Your task to perform on an android device: Open sound settings Image 0: 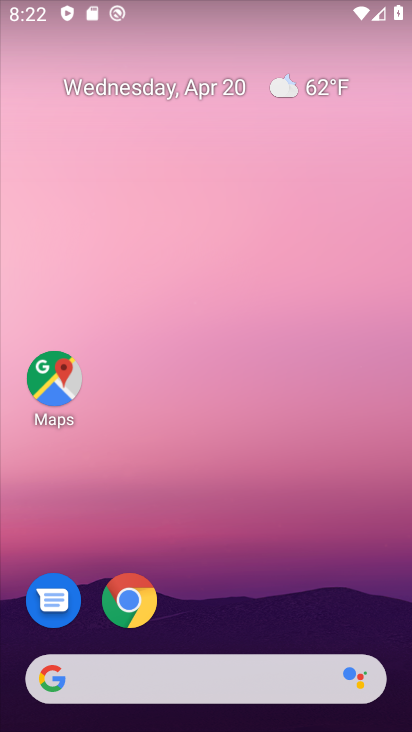
Step 0: drag from (198, 648) to (288, 116)
Your task to perform on an android device: Open sound settings Image 1: 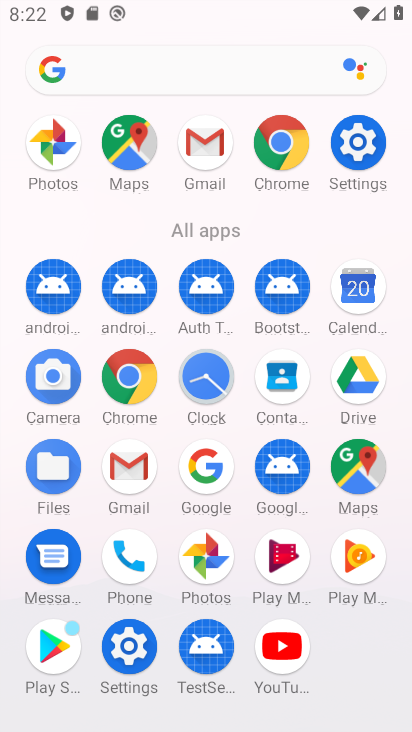
Step 1: click (147, 660)
Your task to perform on an android device: Open sound settings Image 2: 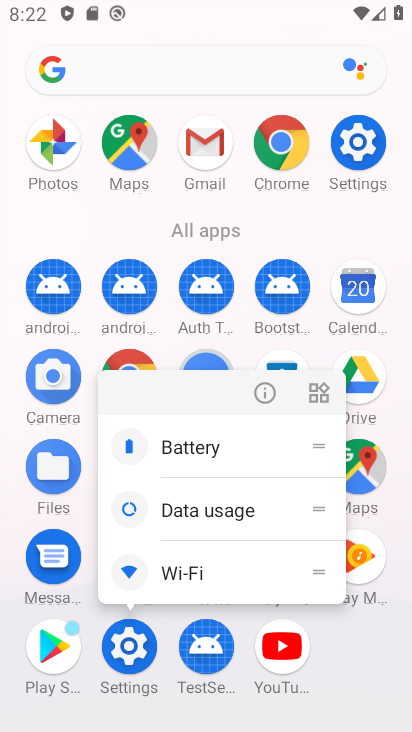
Step 2: click (131, 641)
Your task to perform on an android device: Open sound settings Image 3: 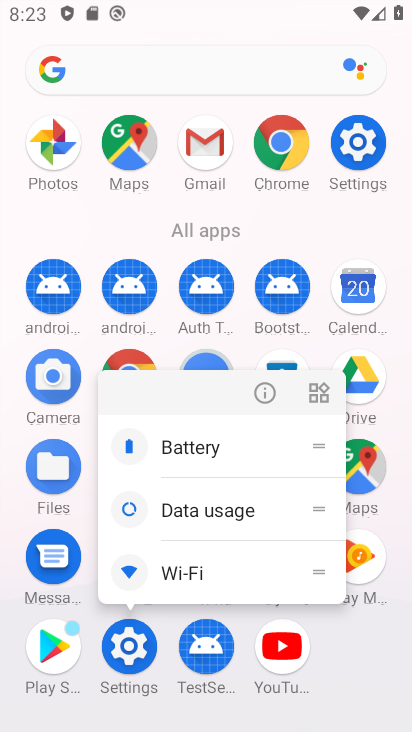
Step 3: click (131, 641)
Your task to perform on an android device: Open sound settings Image 4: 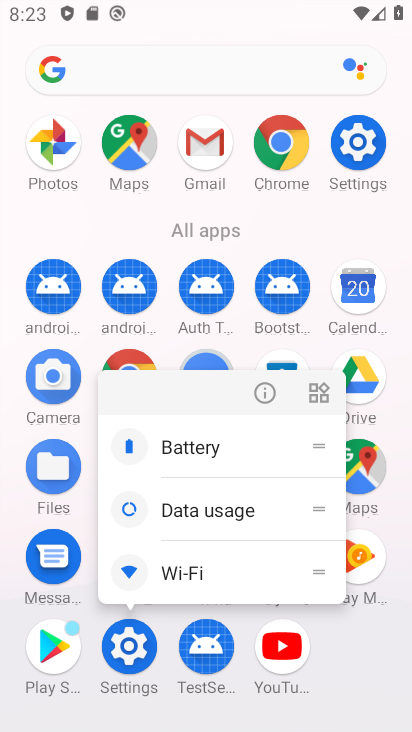
Step 4: click (131, 649)
Your task to perform on an android device: Open sound settings Image 5: 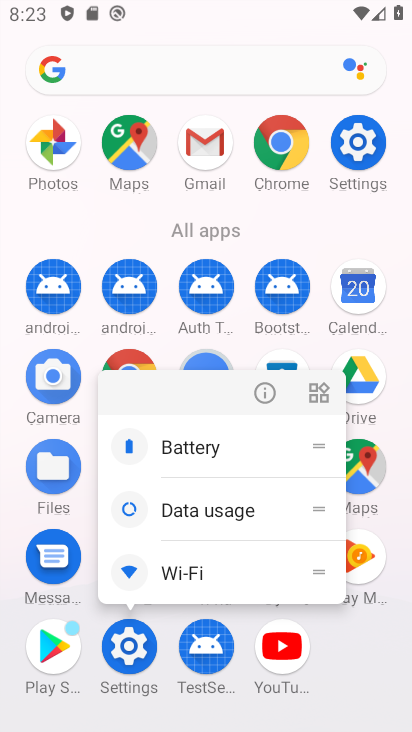
Step 5: click (125, 663)
Your task to perform on an android device: Open sound settings Image 6: 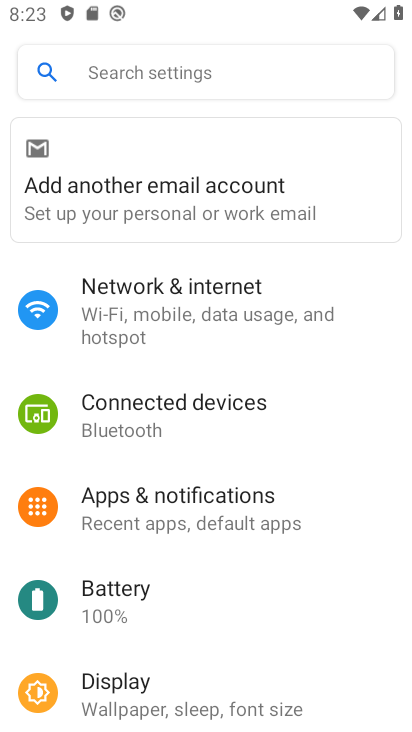
Step 6: drag from (186, 651) to (283, 320)
Your task to perform on an android device: Open sound settings Image 7: 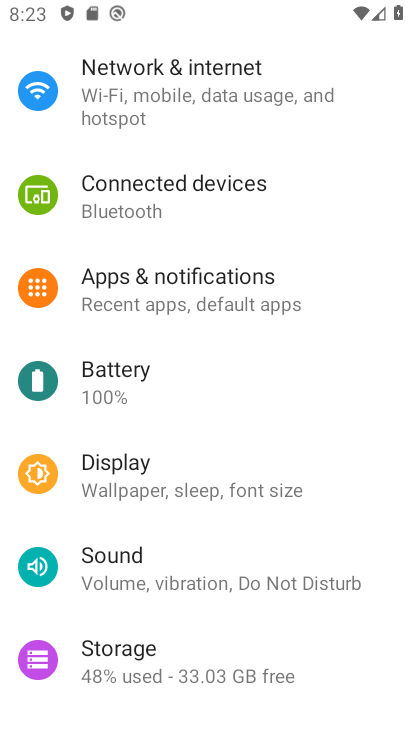
Step 7: click (186, 576)
Your task to perform on an android device: Open sound settings Image 8: 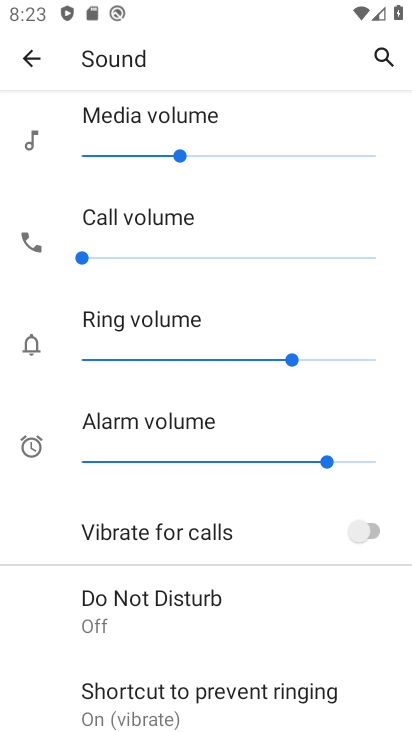
Step 8: task complete